Your task to perform on an android device: add a contact in the contacts app Image 0: 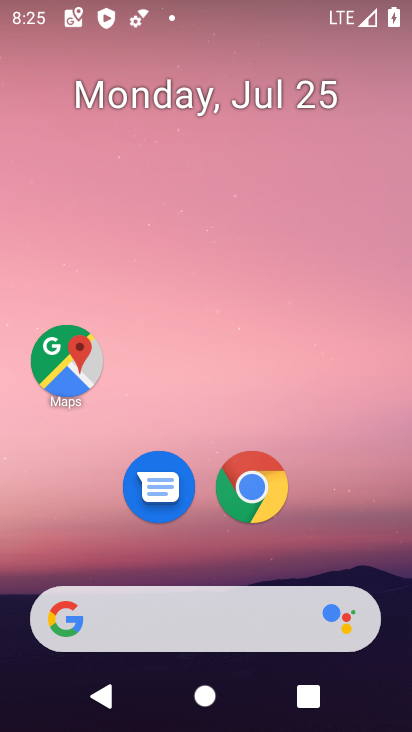
Step 0: drag from (120, 566) to (236, 17)
Your task to perform on an android device: add a contact in the contacts app Image 1: 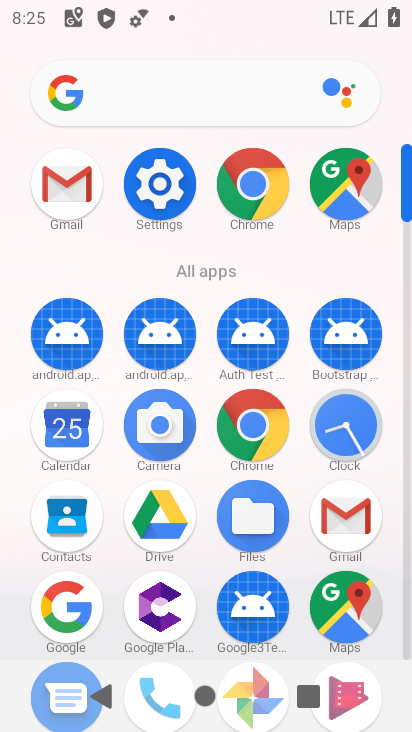
Step 1: click (58, 516)
Your task to perform on an android device: add a contact in the contacts app Image 2: 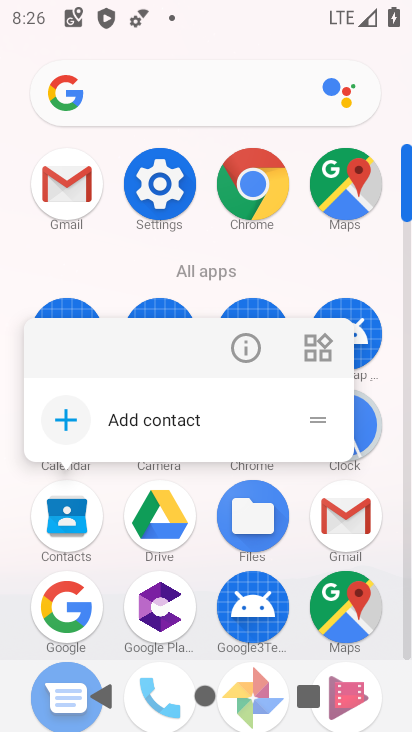
Step 2: click (56, 524)
Your task to perform on an android device: add a contact in the contacts app Image 3: 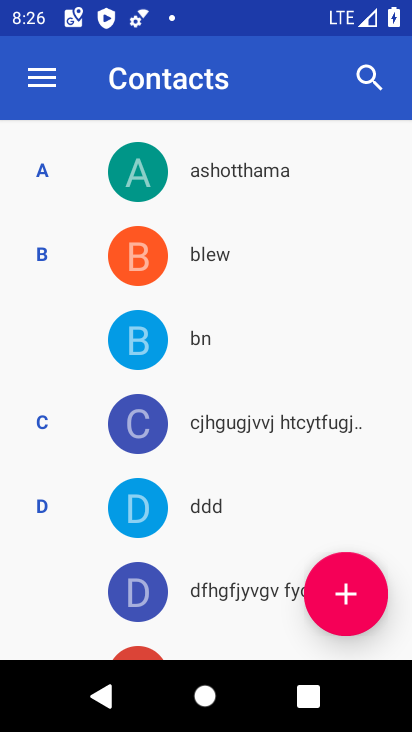
Step 3: click (334, 580)
Your task to perform on an android device: add a contact in the contacts app Image 4: 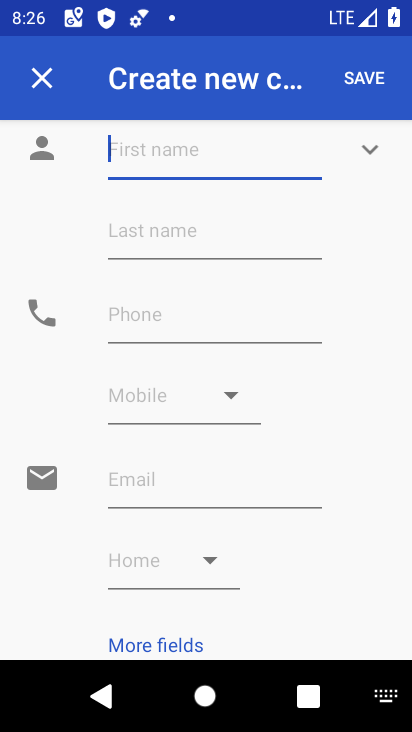
Step 4: type "vffdbfd"
Your task to perform on an android device: add a contact in the contacts app Image 5: 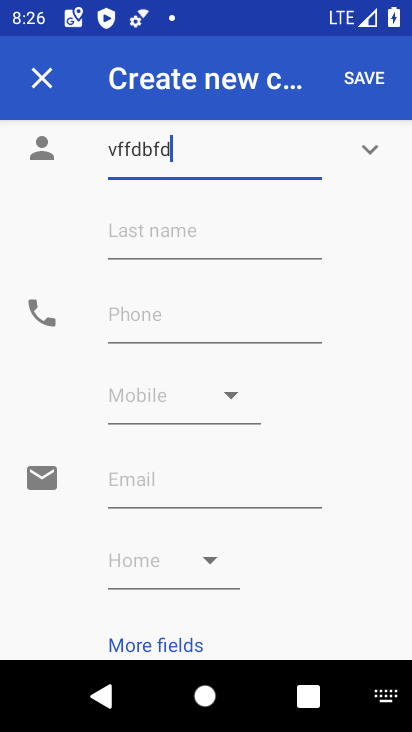
Step 5: click (136, 328)
Your task to perform on an android device: add a contact in the contacts app Image 6: 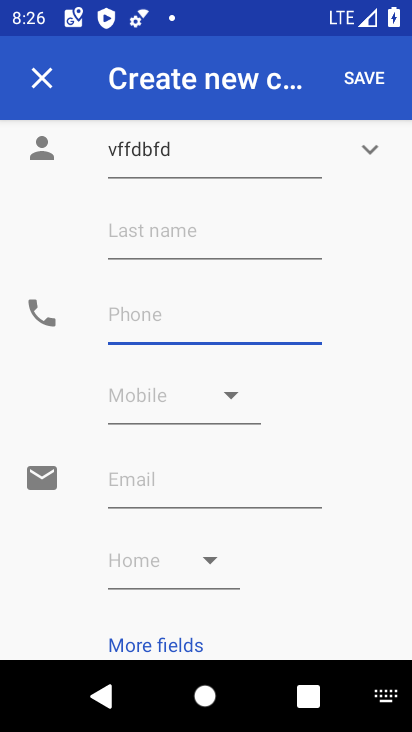
Step 6: type "5645654"
Your task to perform on an android device: add a contact in the contacts app Image 7: 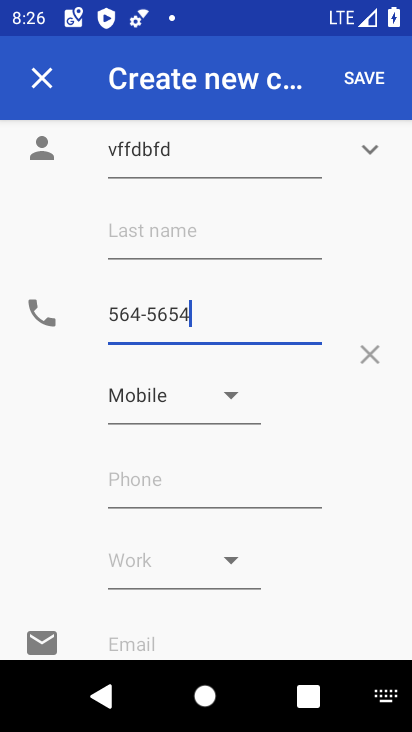
Step 7: click (349, 80)
Your task to perform on an android device: add a contact in the contacts app Image 8: 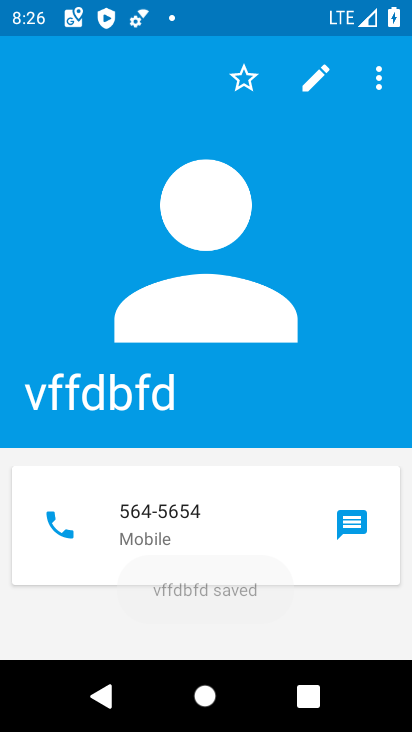
Step 8: task complete